Your task to perform on an android device: Go to notification settings Image 0: 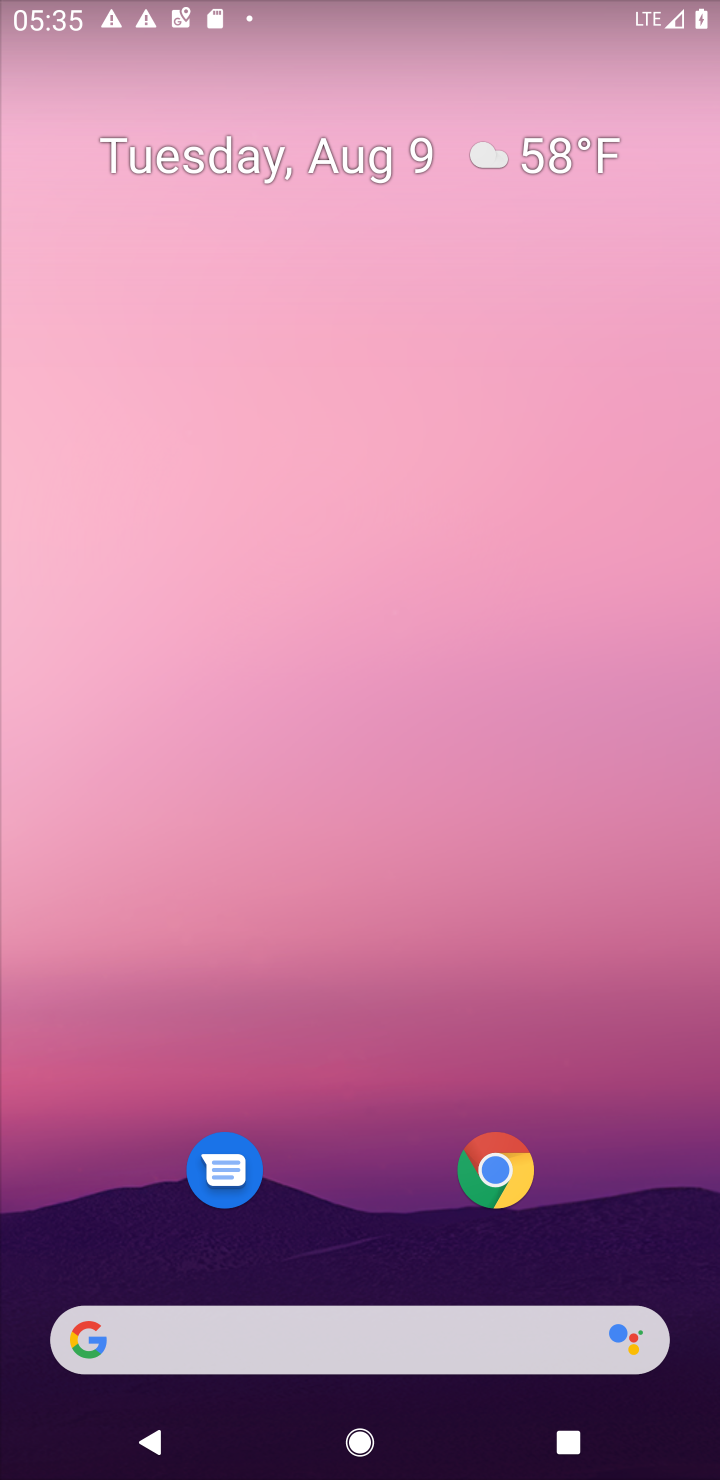
Step 0: press home button
Your task to perform on an android device: Go to notification settings Image 1: 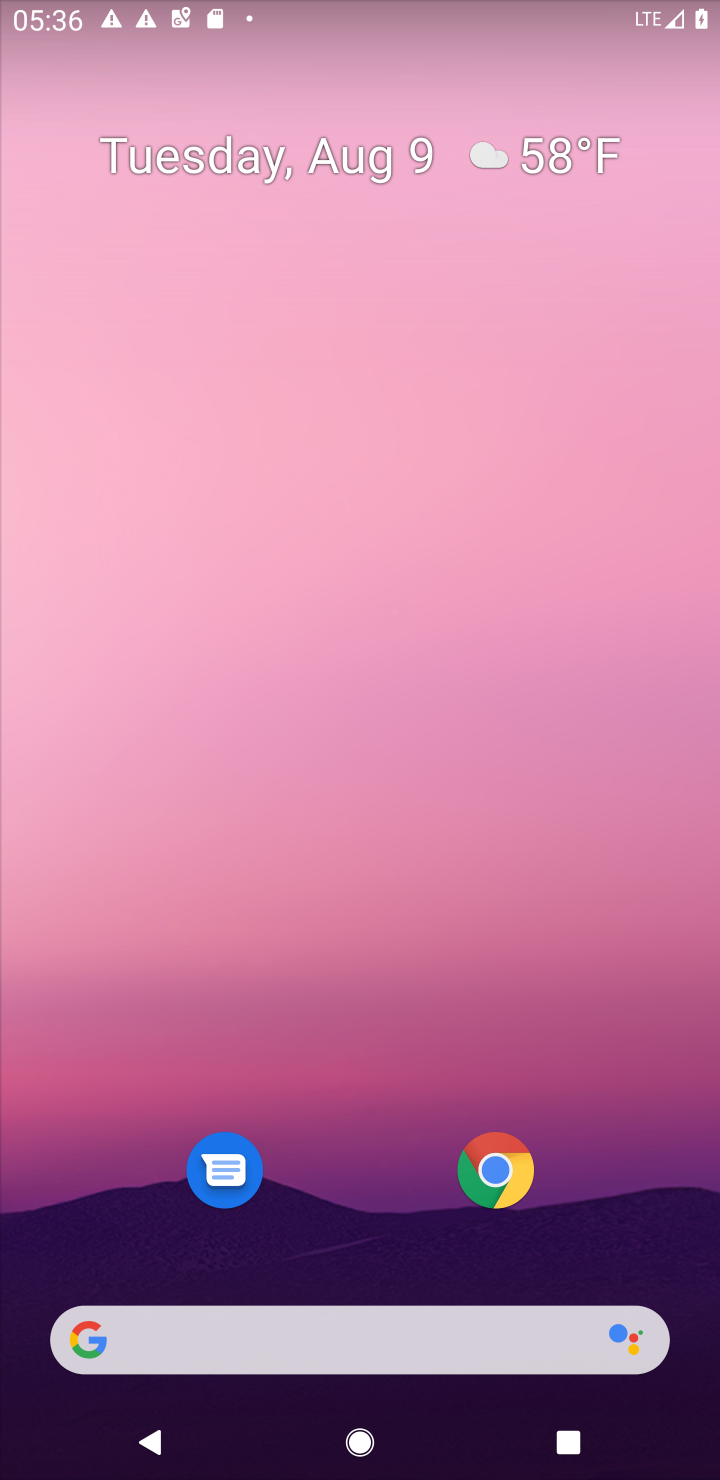
Step 1: drag from (316, 1241) to (315, 117)
Your task to perform on an android device: Go to notification settings Image 2: 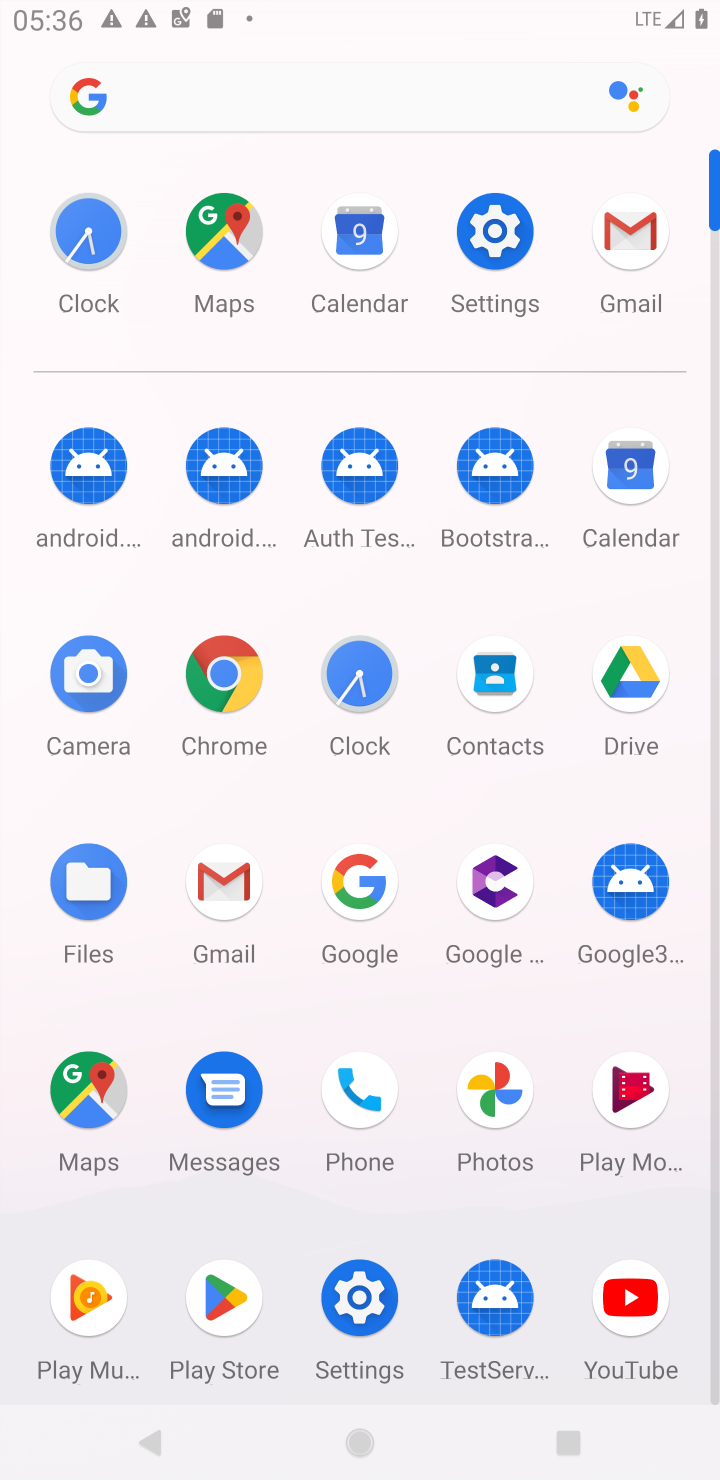
Step 2: click (490, 263)
Your task to perform on an android device: Go to notification settings Image 3: 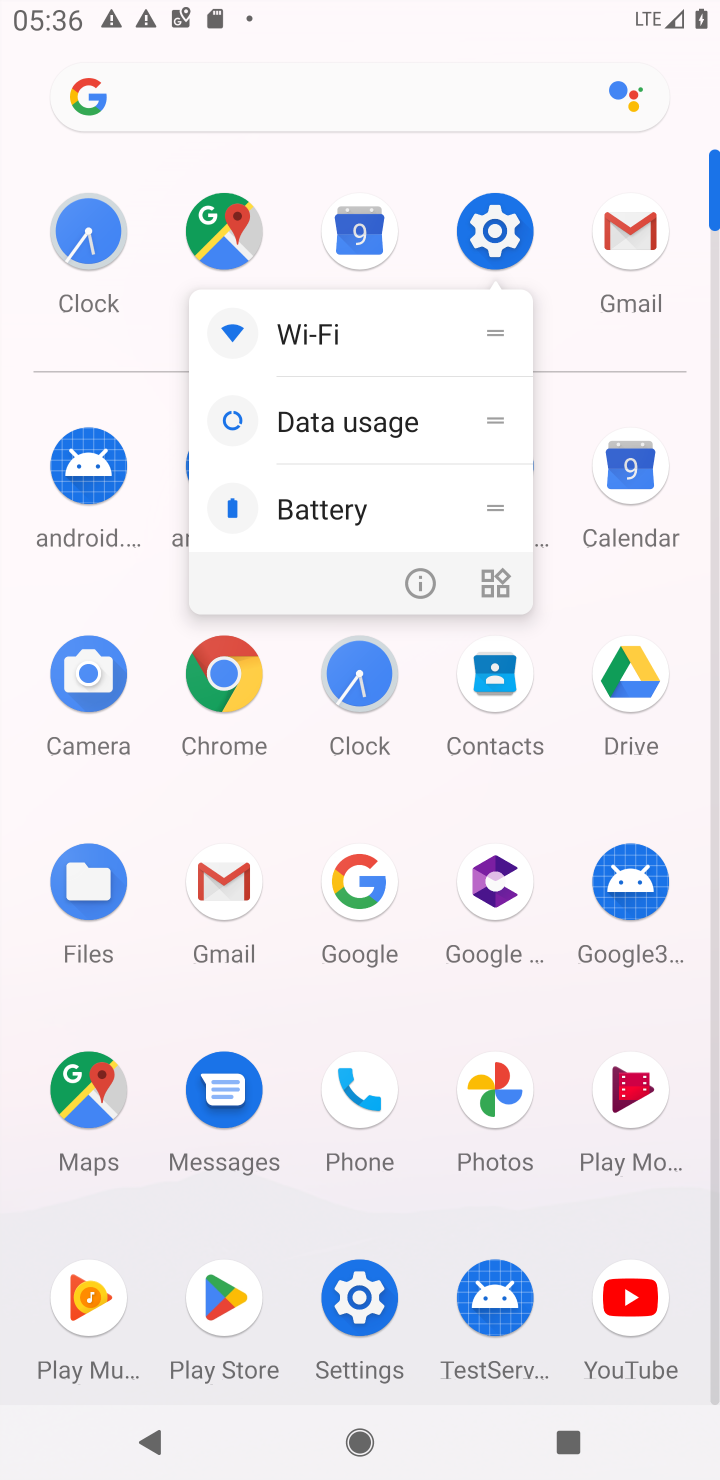
Step 3: click (490, 263)
Your task to perform on an android device: Go to notification settings Image 4: 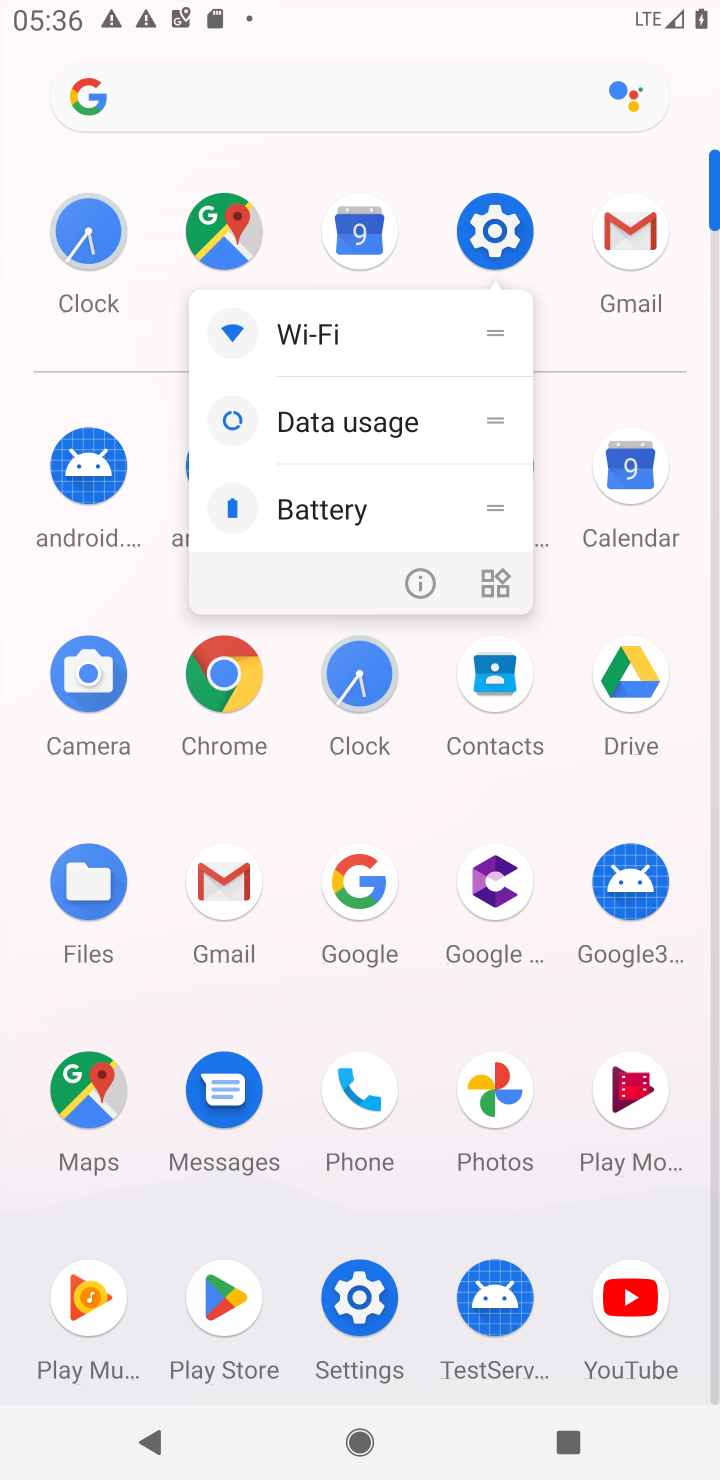
Step 4: click (490, 263)
Your task to perform on an android device: Go to notification settings Image 5: 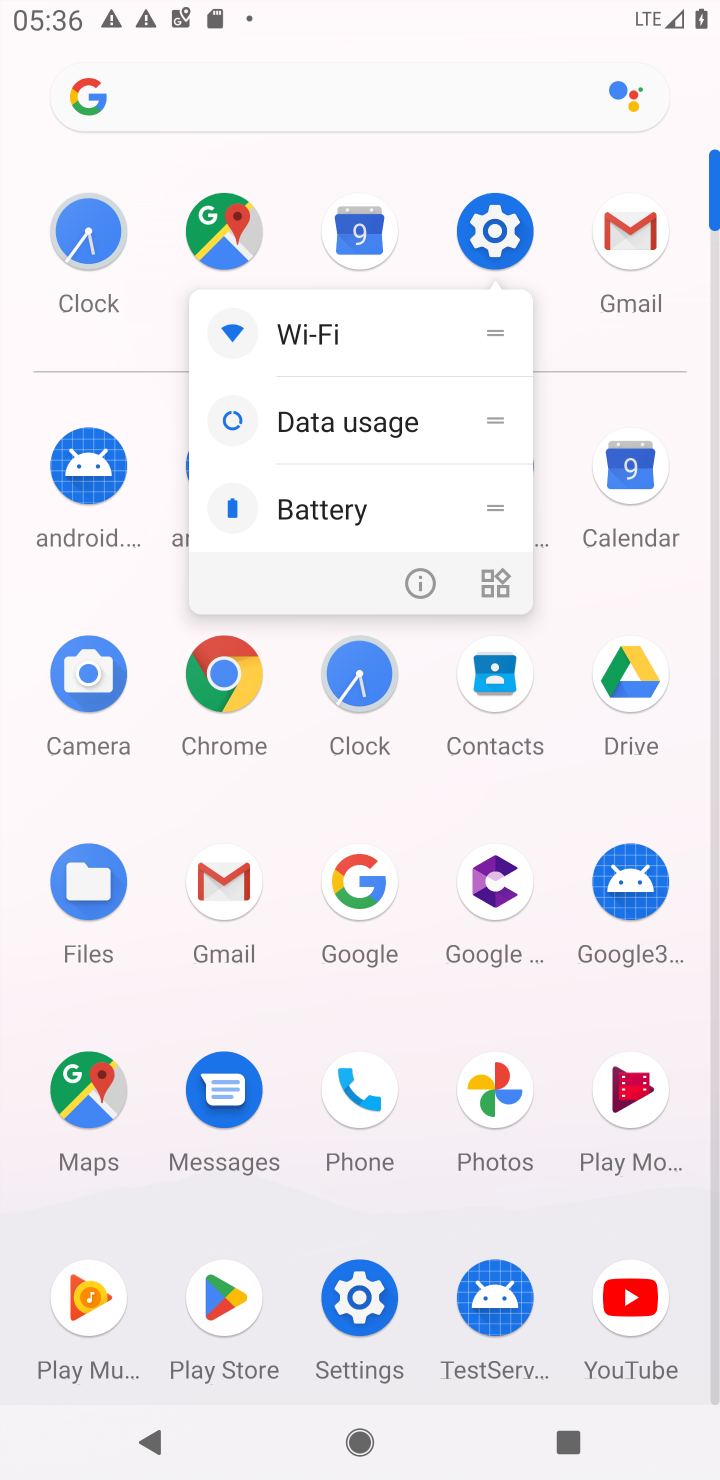
Step 5: click (498, 229)
Your task to perform on an android device: Go to notification settings Image 6: 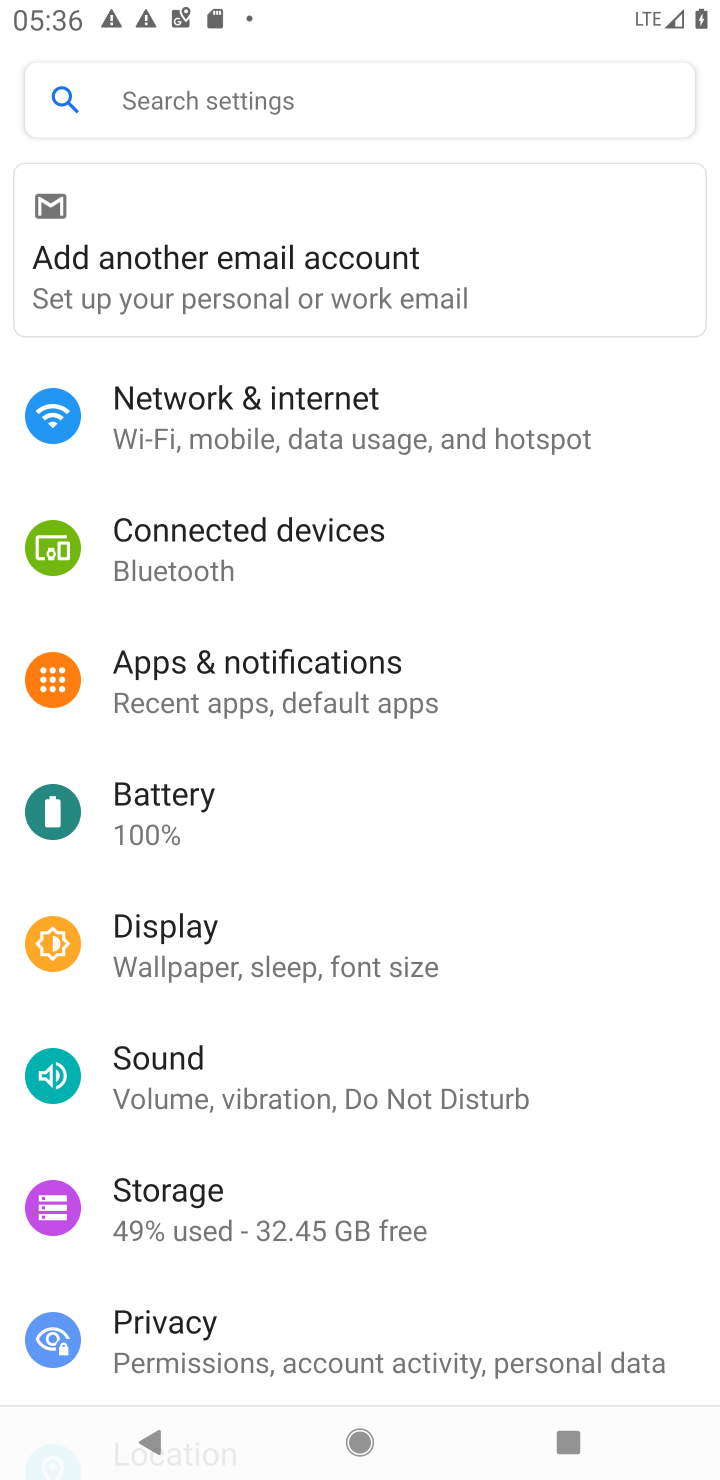
Step 6: click (236, 657)
Your task to perform on an android device: Go to notification settings Image 7: 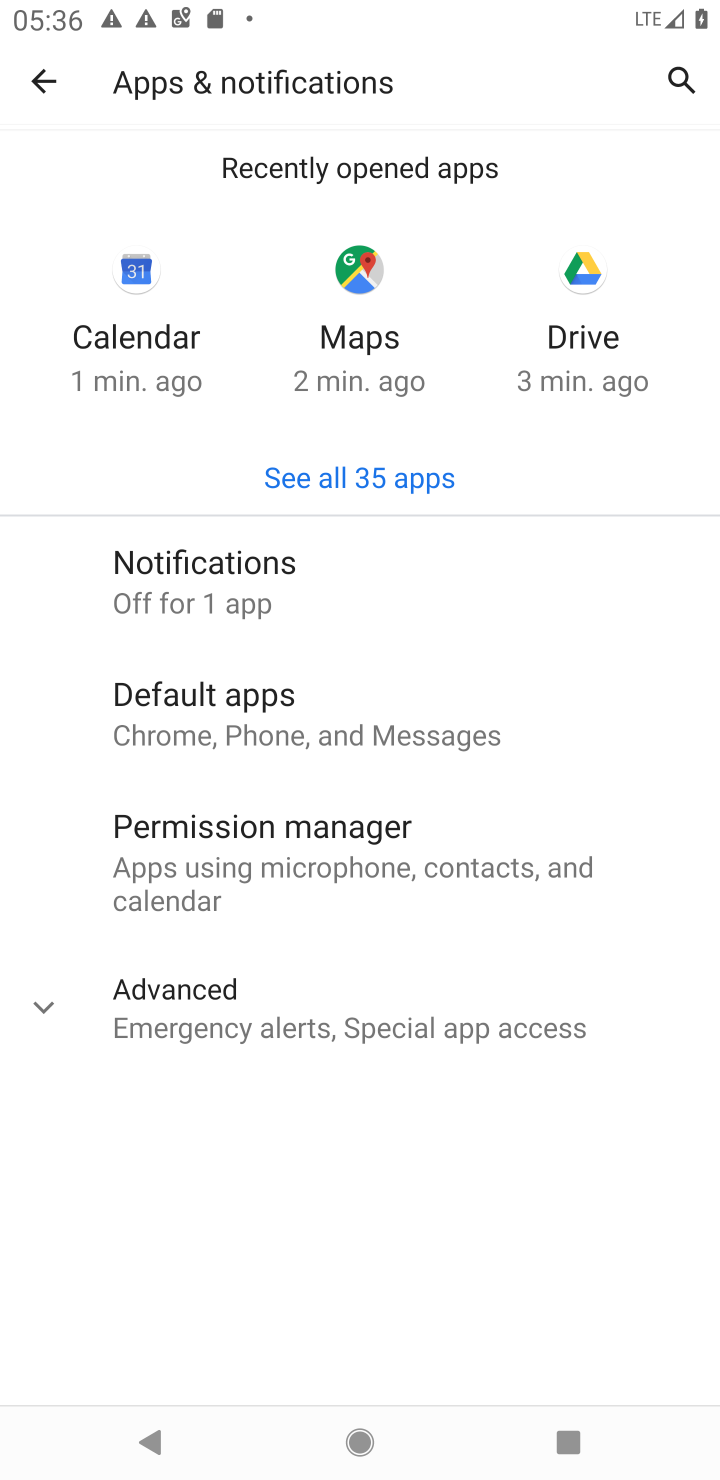
Step 7: click (167, 596)
Your task to perform on an android device: Go to notification settings Image 8: 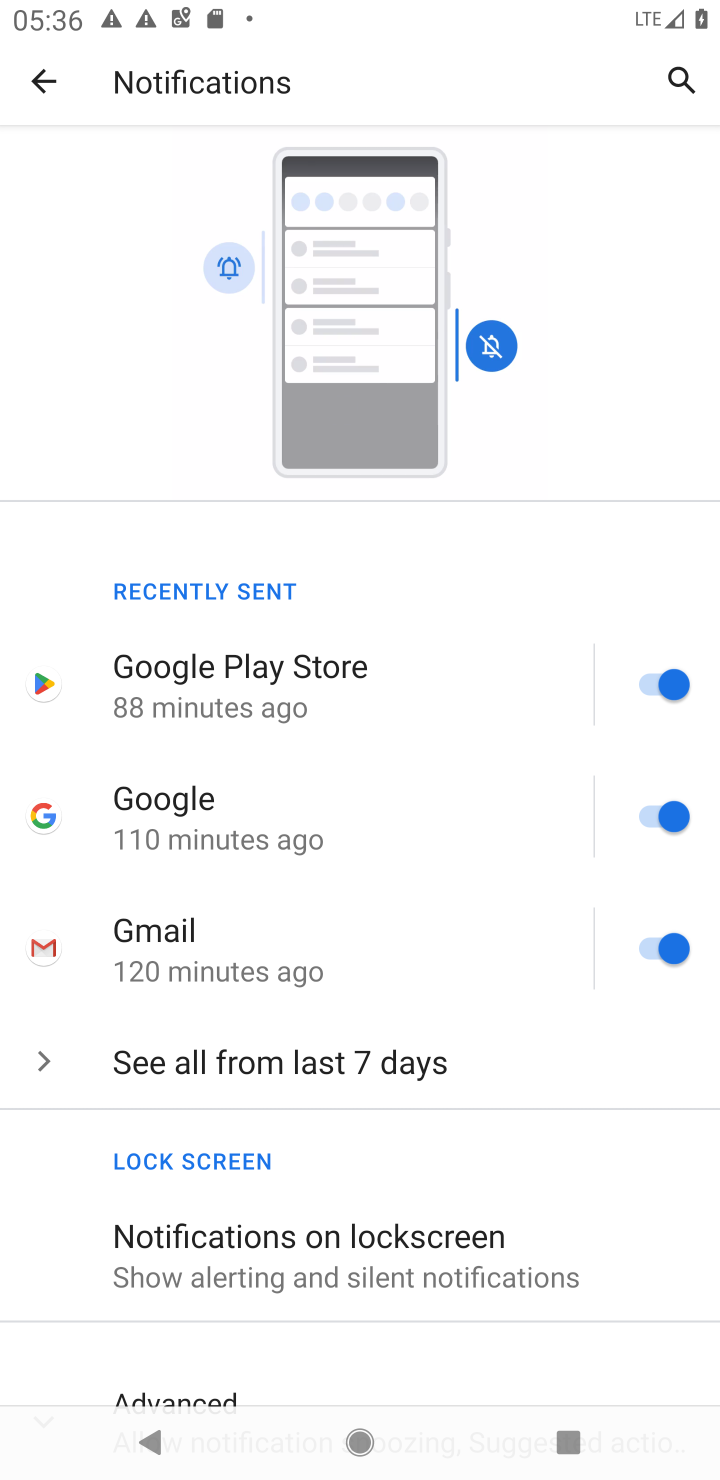
Step 8: task complete